Your task to perform on an android device: Go to Amazon Image 0: 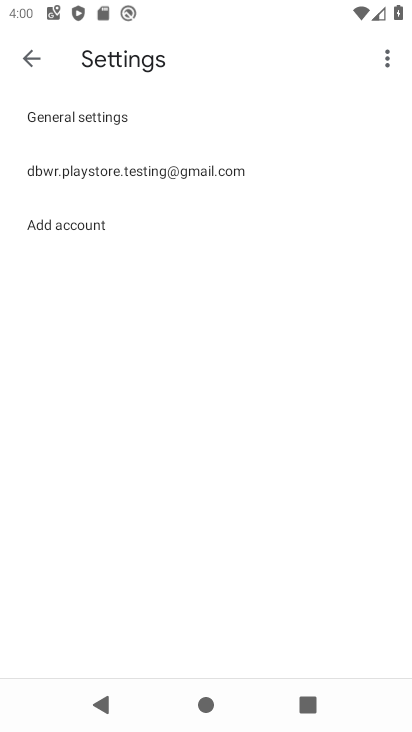
Step 0: press home button
Your task to perform on an android device: Go to Amazon Image 1: 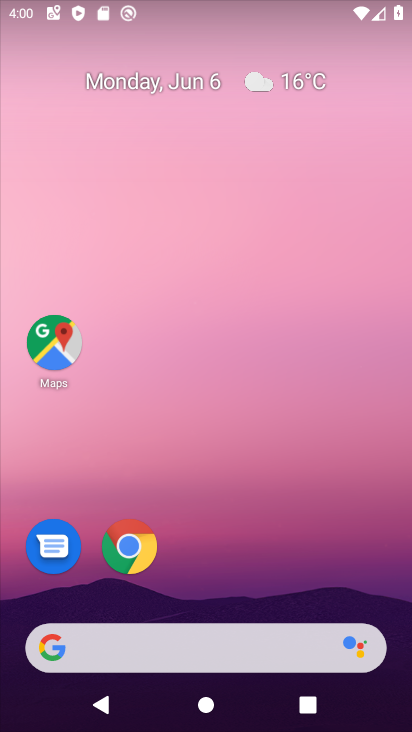
Step 1: drag from (321, 523) to (307, 1)
Your task to perform on an android device: Go to Amazon Image 2: 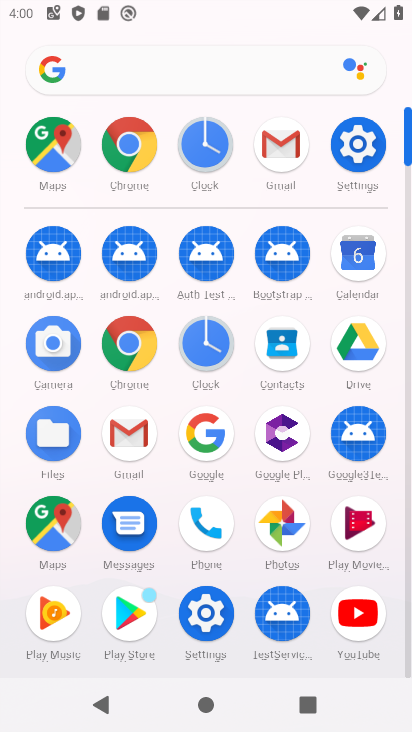
Step 2: click (123, 157)
Your task to perform on an android device: Go to Amazon Image 3: 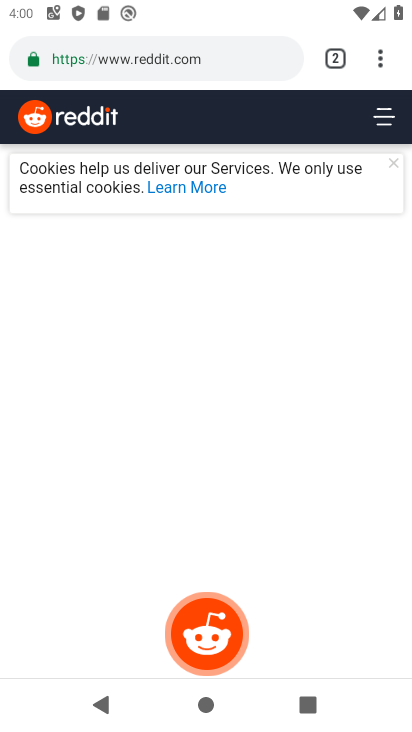
Step 3: click (158, 54)
Your task to perform on an android device: Go to Amazon Image 4: 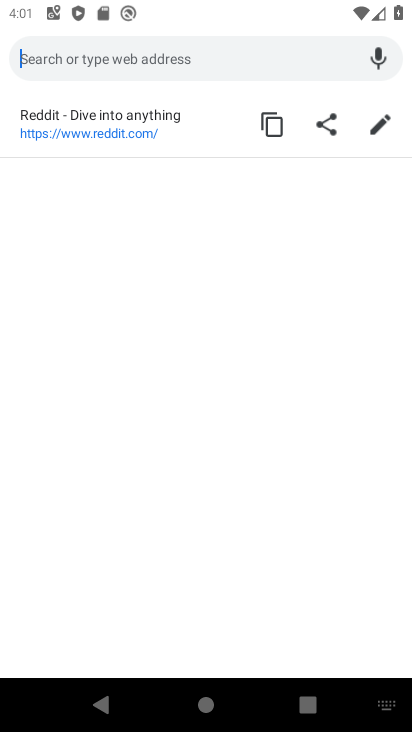
Step 4: type "amazon"
Your task to perform on an android device: Go to Amazon Image 5: 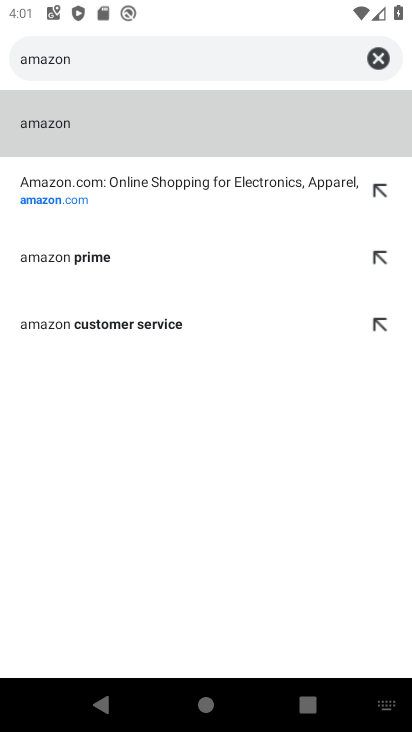
Step 5: click (114, 201)
Your task to perform on an android device: Go to Amazon Image 6: 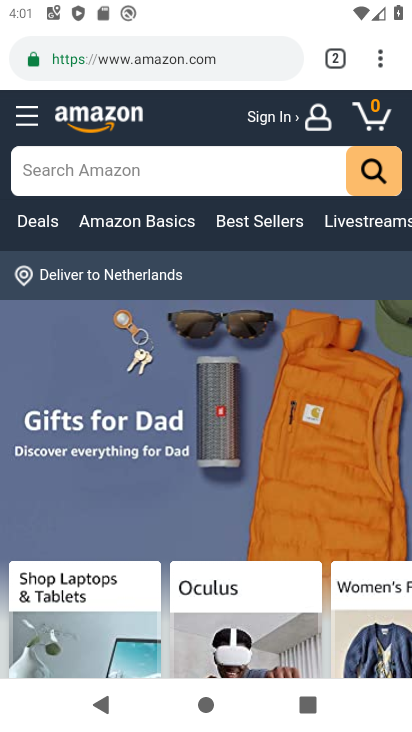
Step 6: task complete